Your task to perform on an android device: move an email to a new category in the gmail app Image 0: 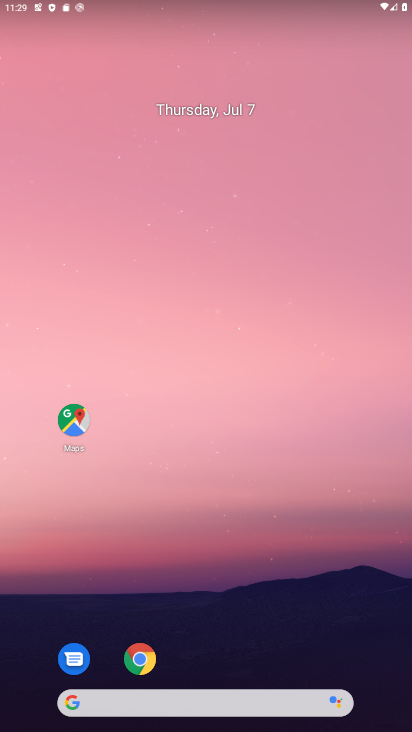
Step 0: drag from (204, 649) to (248, 90)
Your task to perform on an android device: move an email to a new category in the gmail app Image 1: 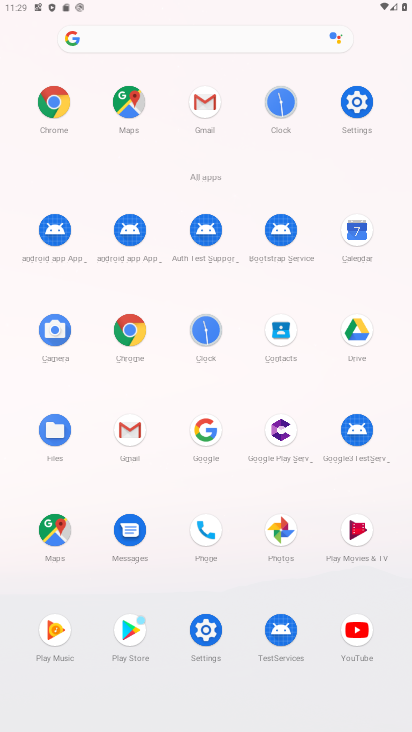
Step 1: click (208, 90)
Your task to perform on an android device: move an email to a new category in the gmail app Image 2: 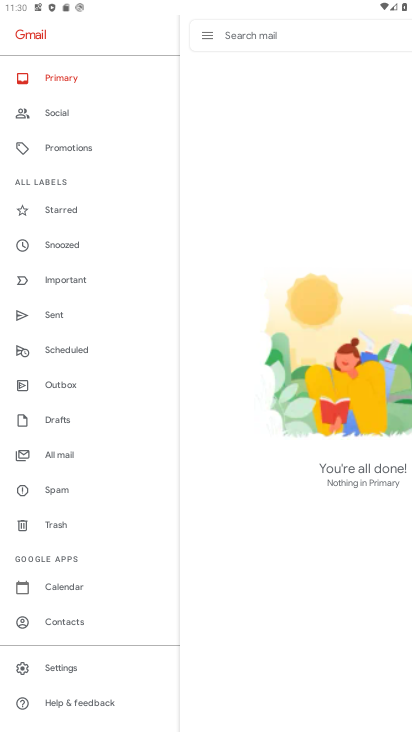
Step 2: task complete